Your task to perform on an android device: show emergency info Image 0: 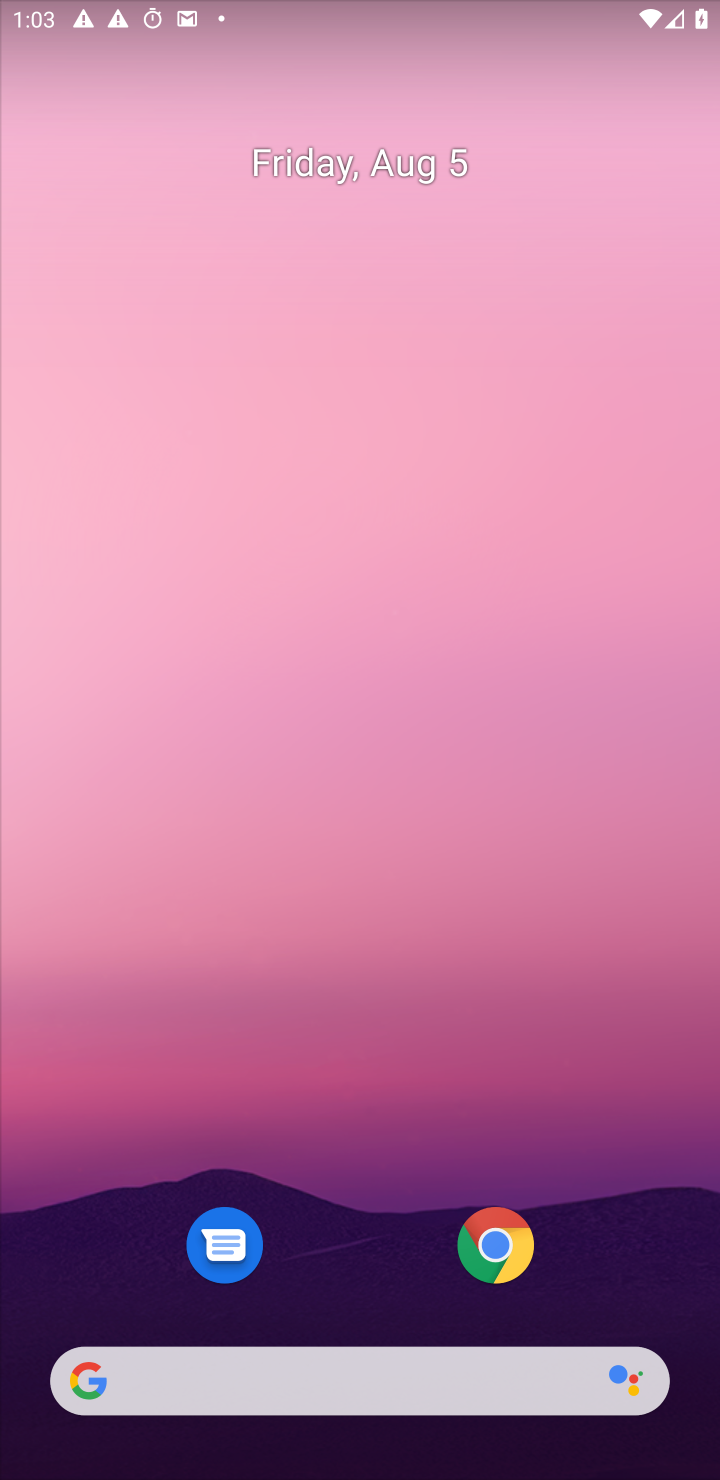
Step 0: drag from (282, 198) to (280, 88)
Your task to perform on an android device: show emergency info Image 1: 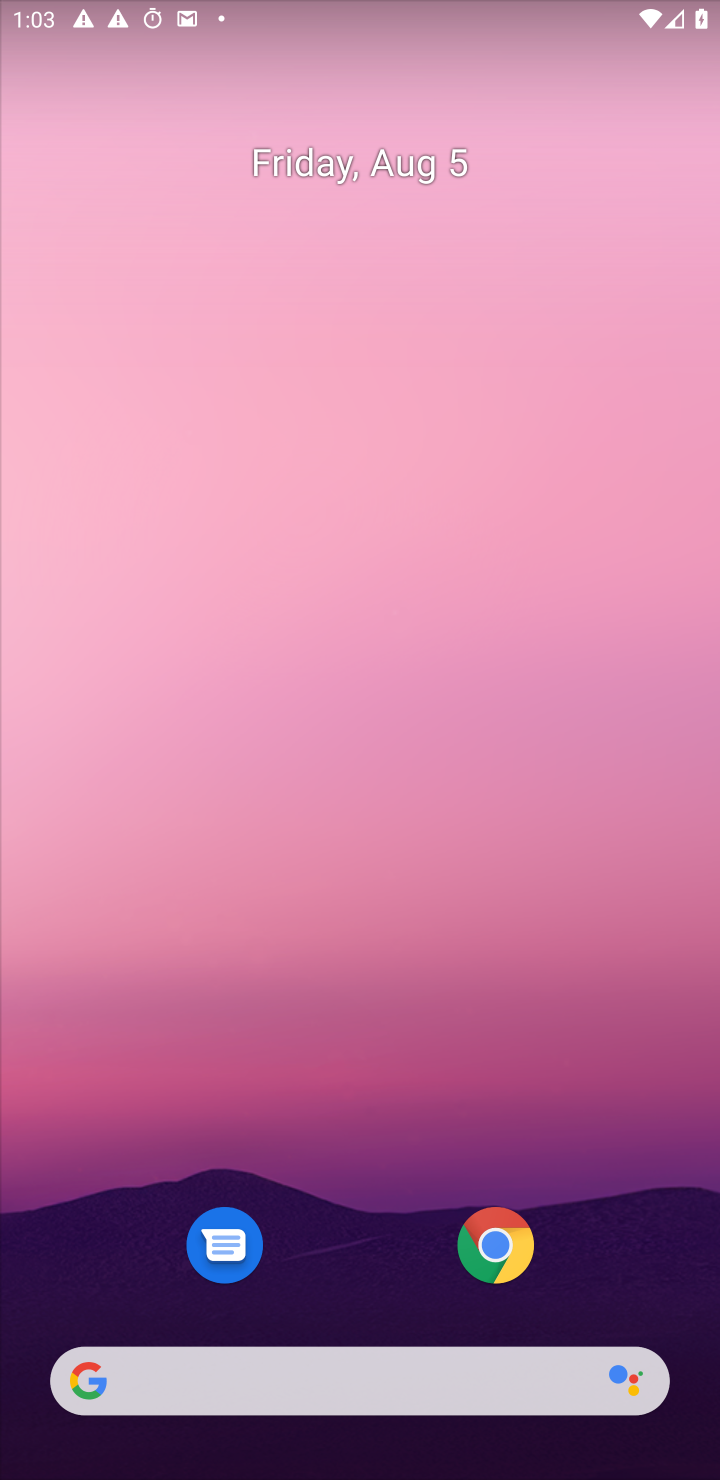
Step 1: drag from (496, 363) to (534, 38)
Your task to perform on an android device: show emergency info Image 2: 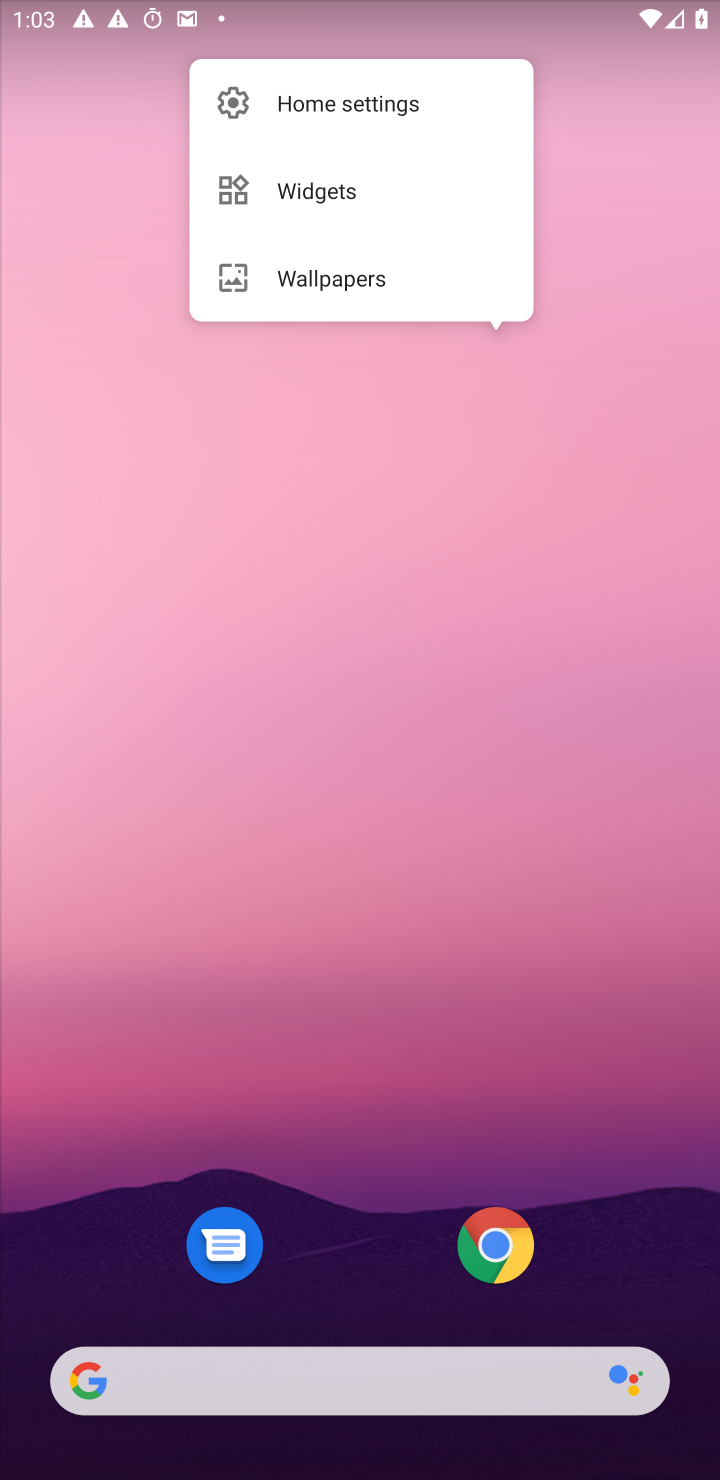
Step 2: click (320, 1178)
Your task to perform on an android device: show emergency info Image 3: 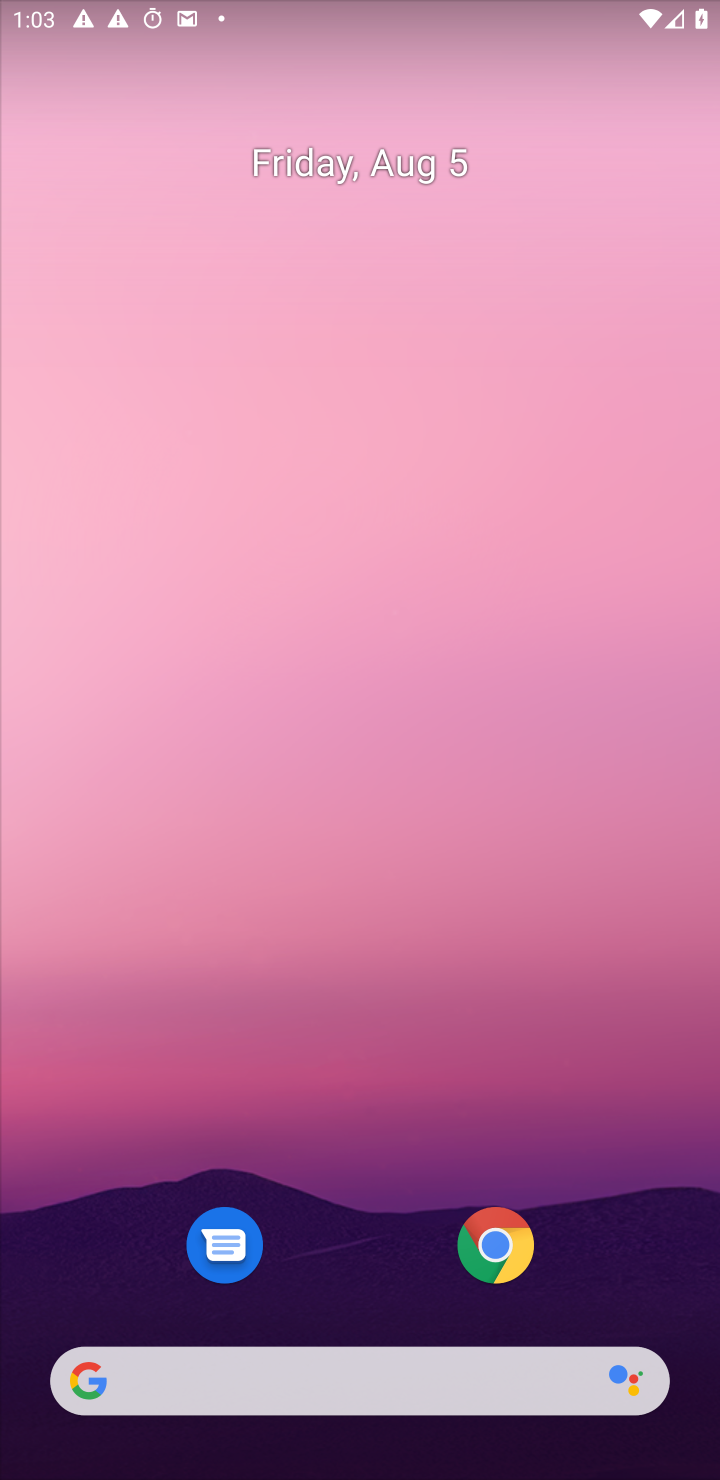
Step 3: drag from (408, 1040) to (401, 172)
Your task to perform on an android device: show emergency info Image 4: 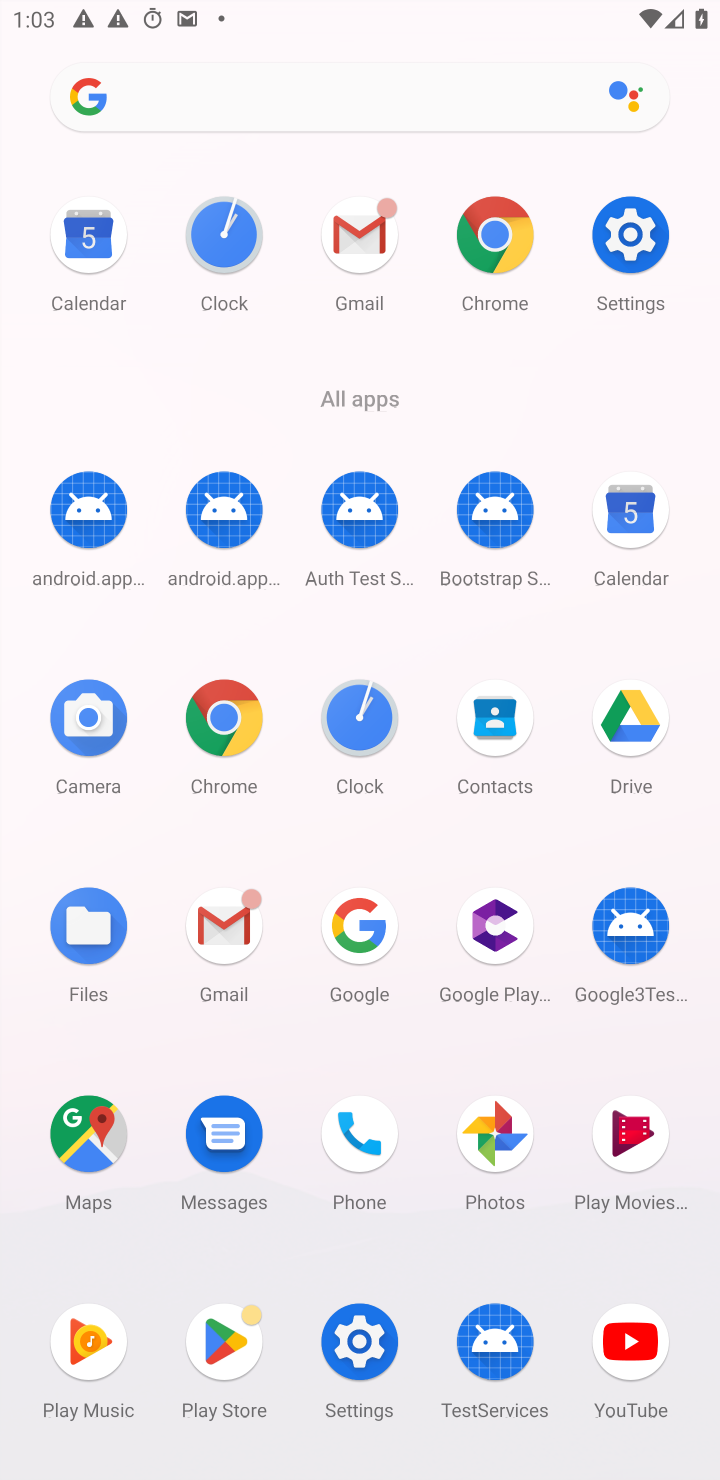
Step 4: click (641, 231)
Your task to perform on an android device: show emergency info Image 5: 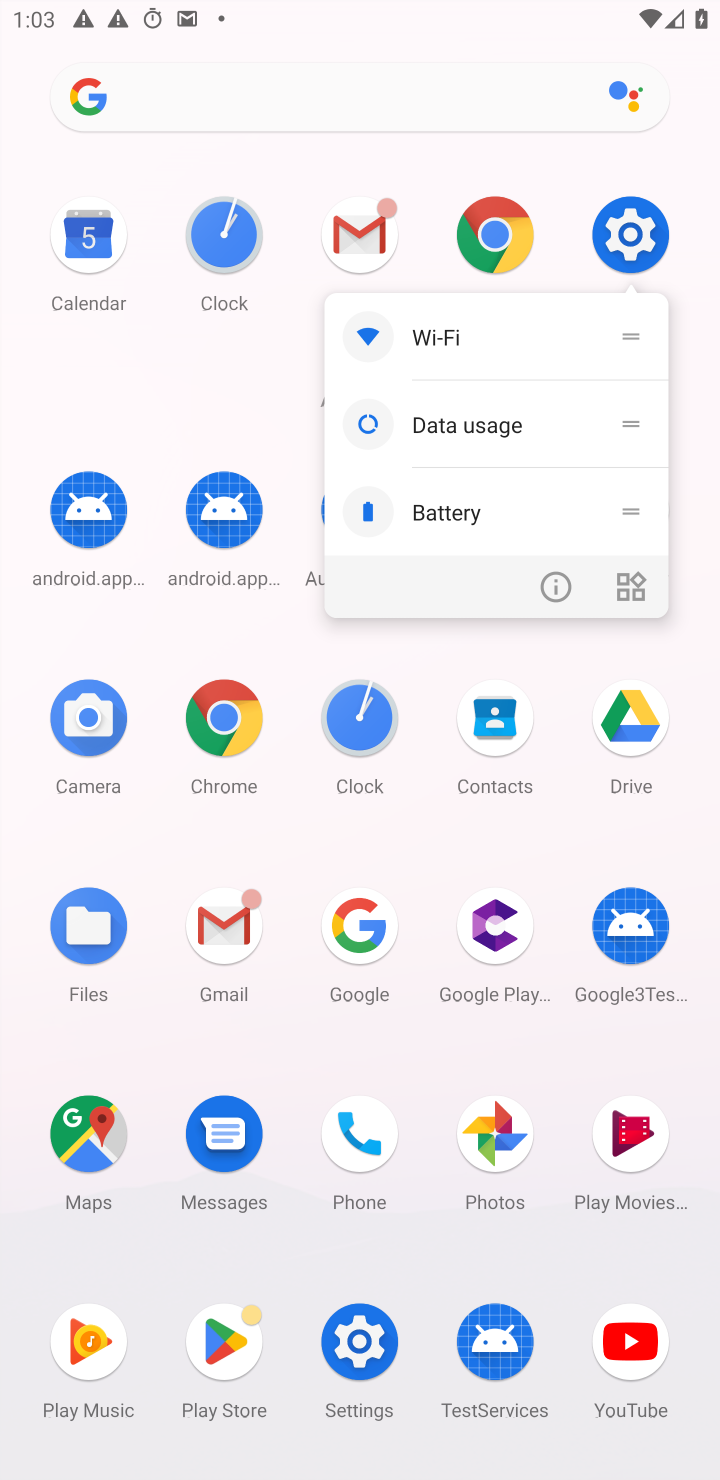
Step 5: click (641, 231)
Your task to perform on an android device: show emergency info Image 6: 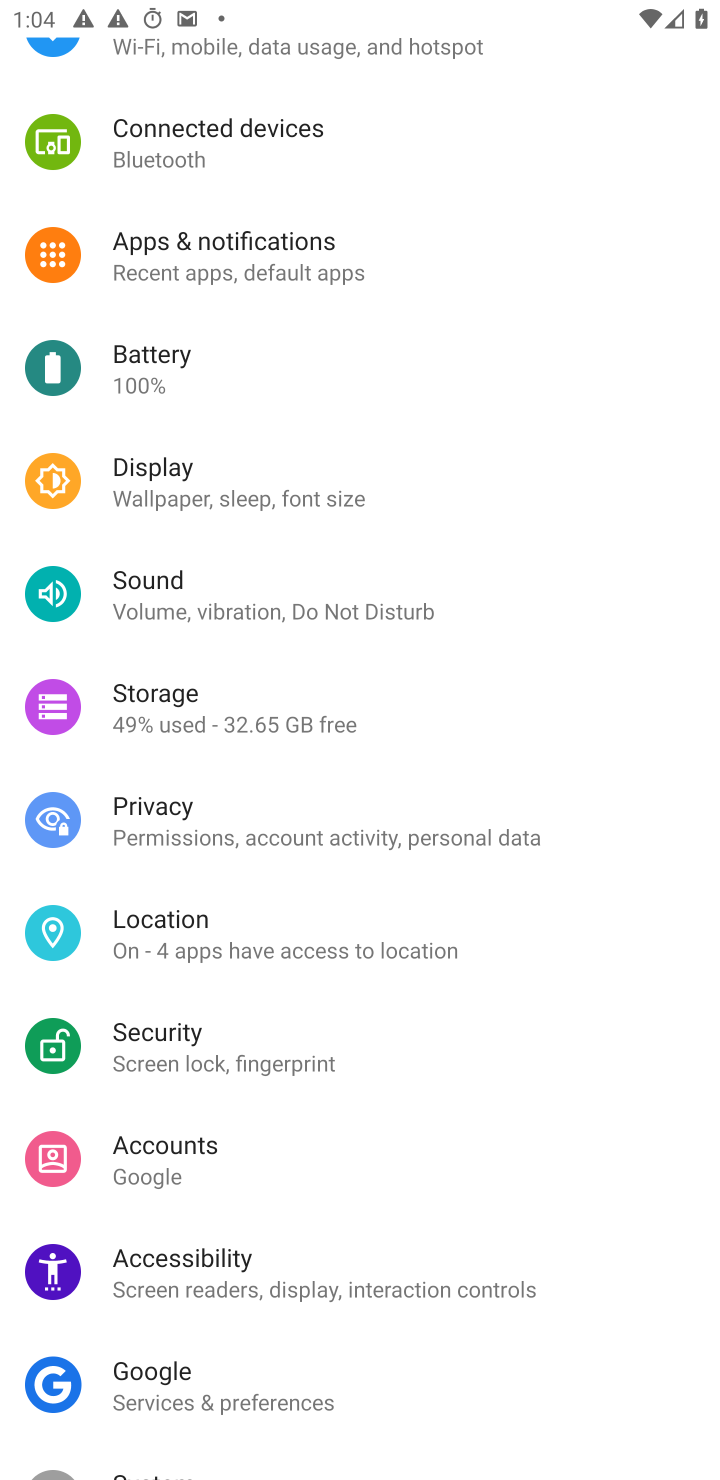
Step 6: drag from (418, 648) to (291, 1266)
Your task to perform on an android device: show emergency info Image 7: 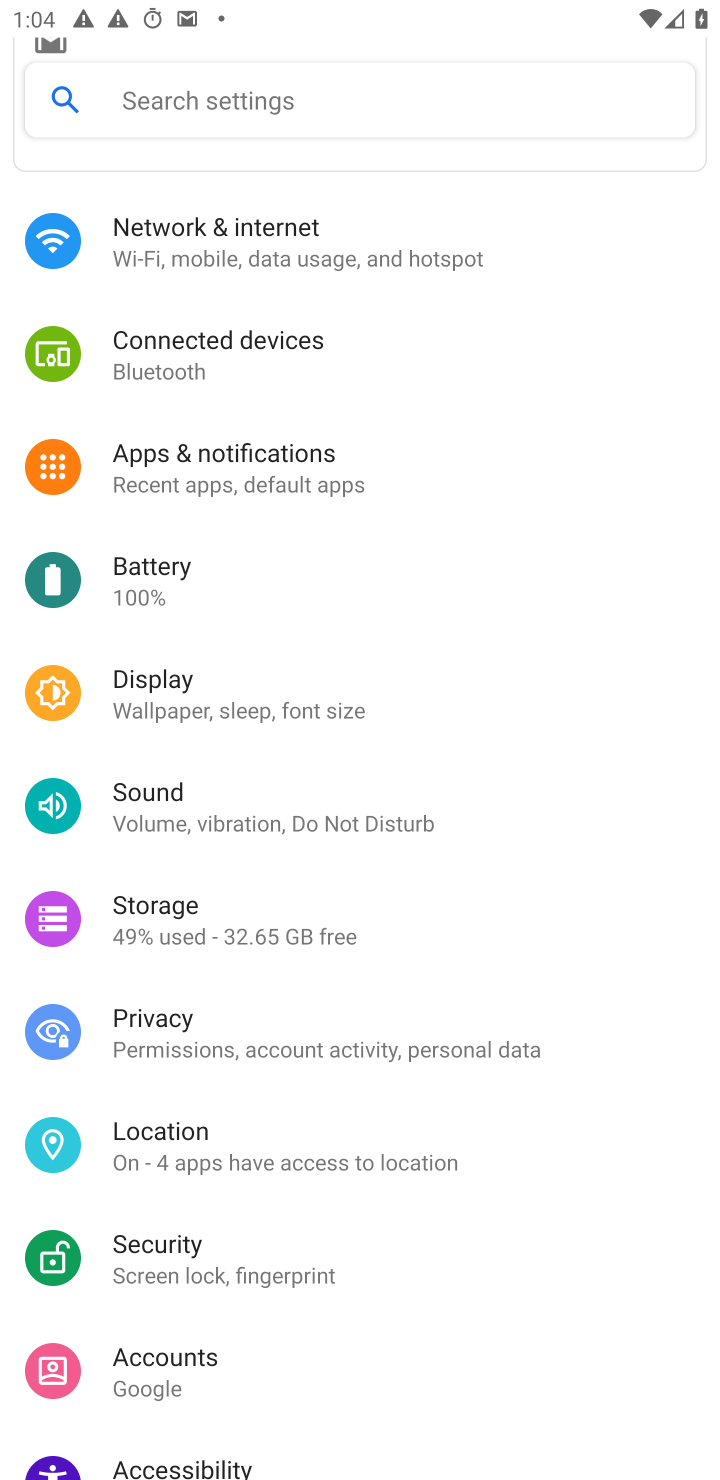
Step 7: drag from (418, 483) to (371, 897)
Your task to perform on an android device: show emergency info Image 8: 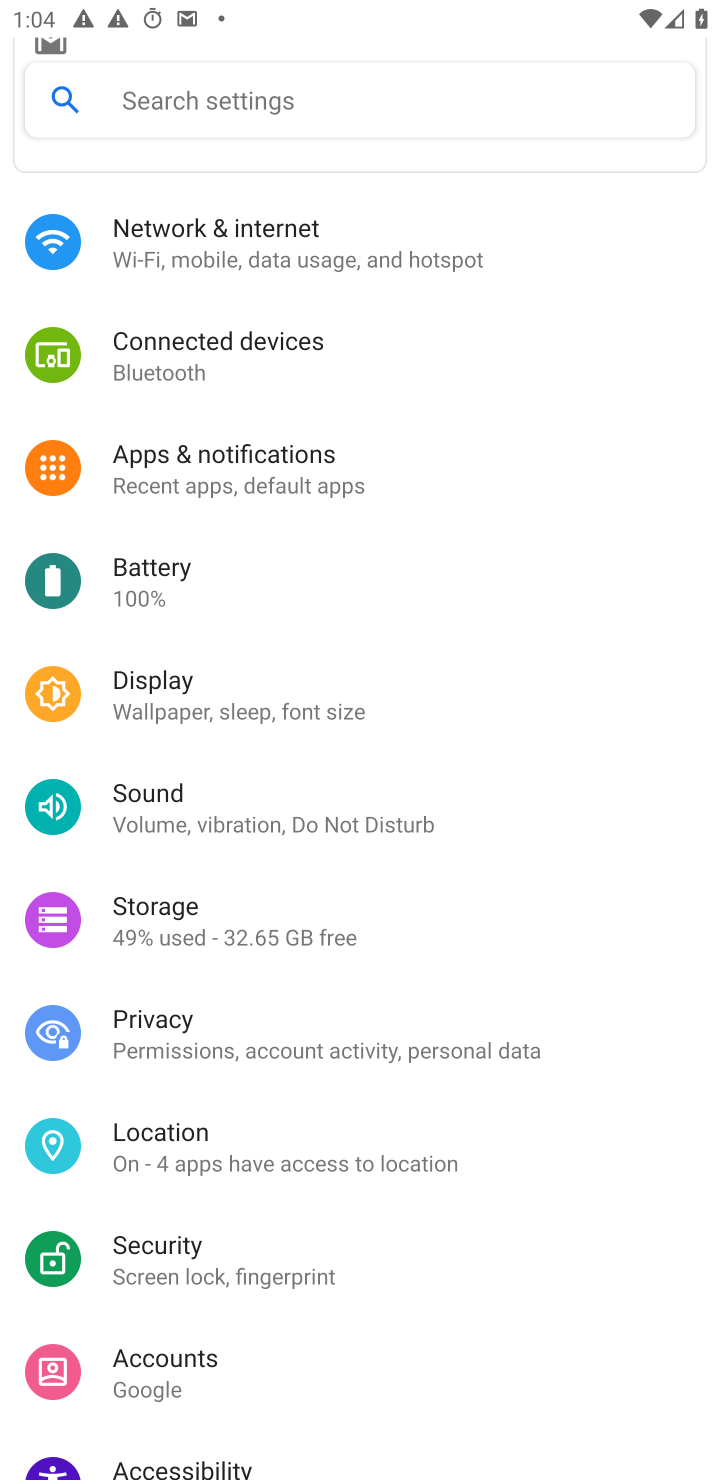
Step 8: drag from (501, 677) to (422, 11)
Your task to perform on an android device: show emergency info Image 9: 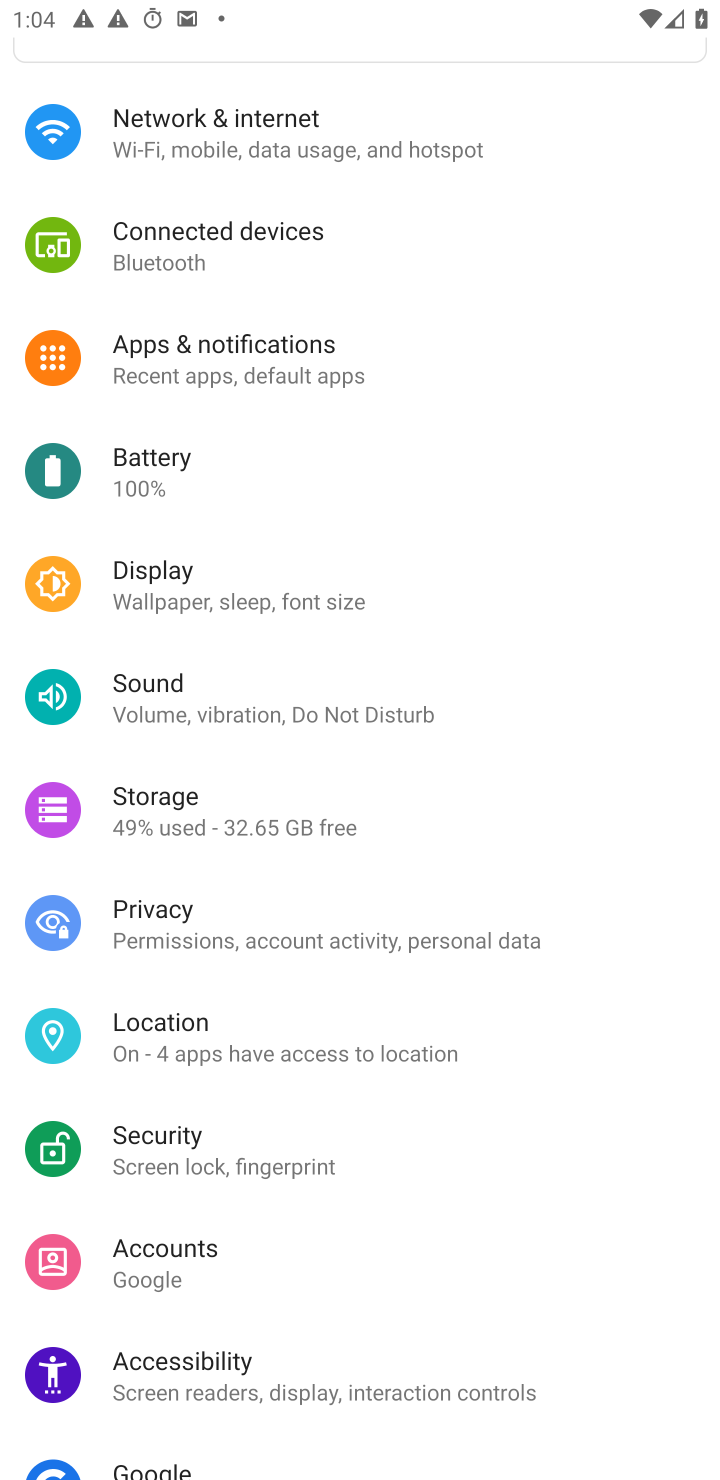
Step 9: drag from (527, 1352) to (525, 421)
Your task to perform on an android device: show emergency info Image 10: 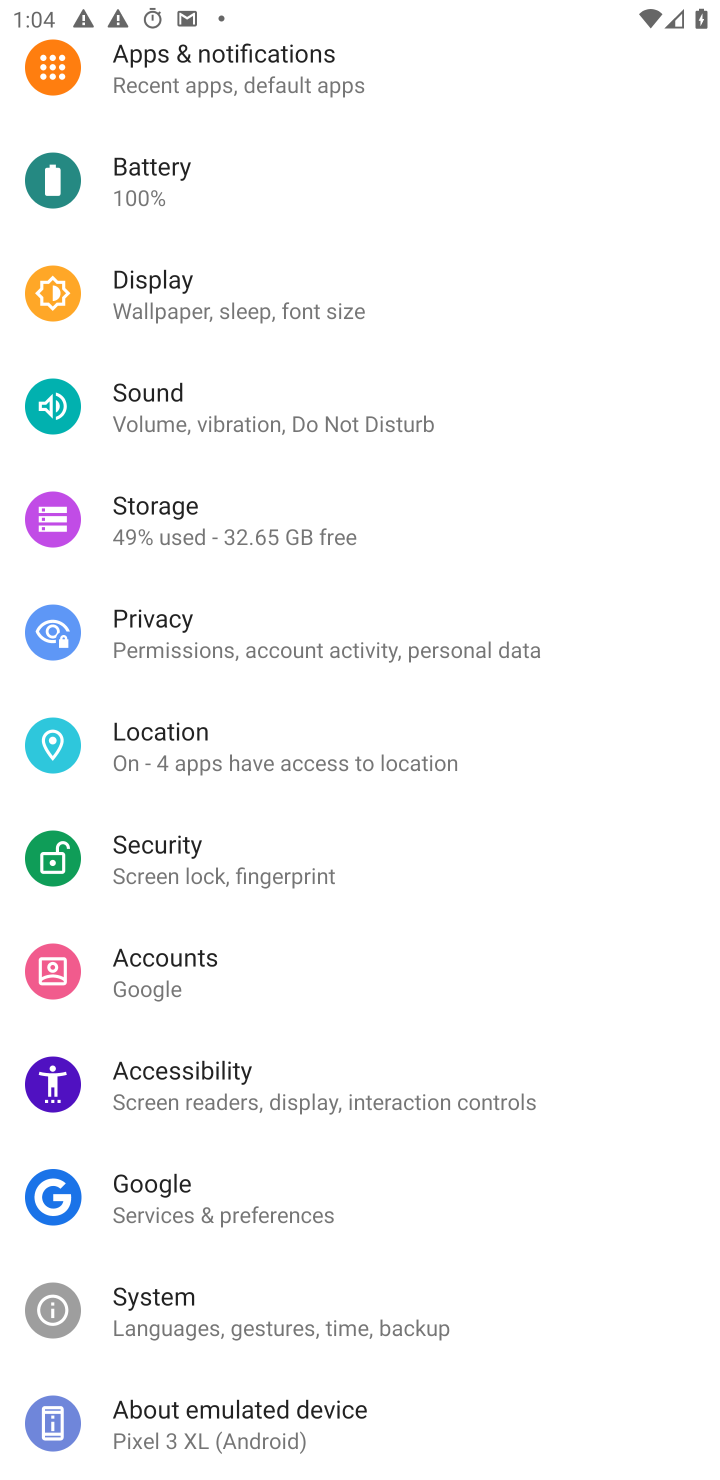
Step 10: click (198, 1429)
Your task to perform on an android device: show emergency info Image 11: 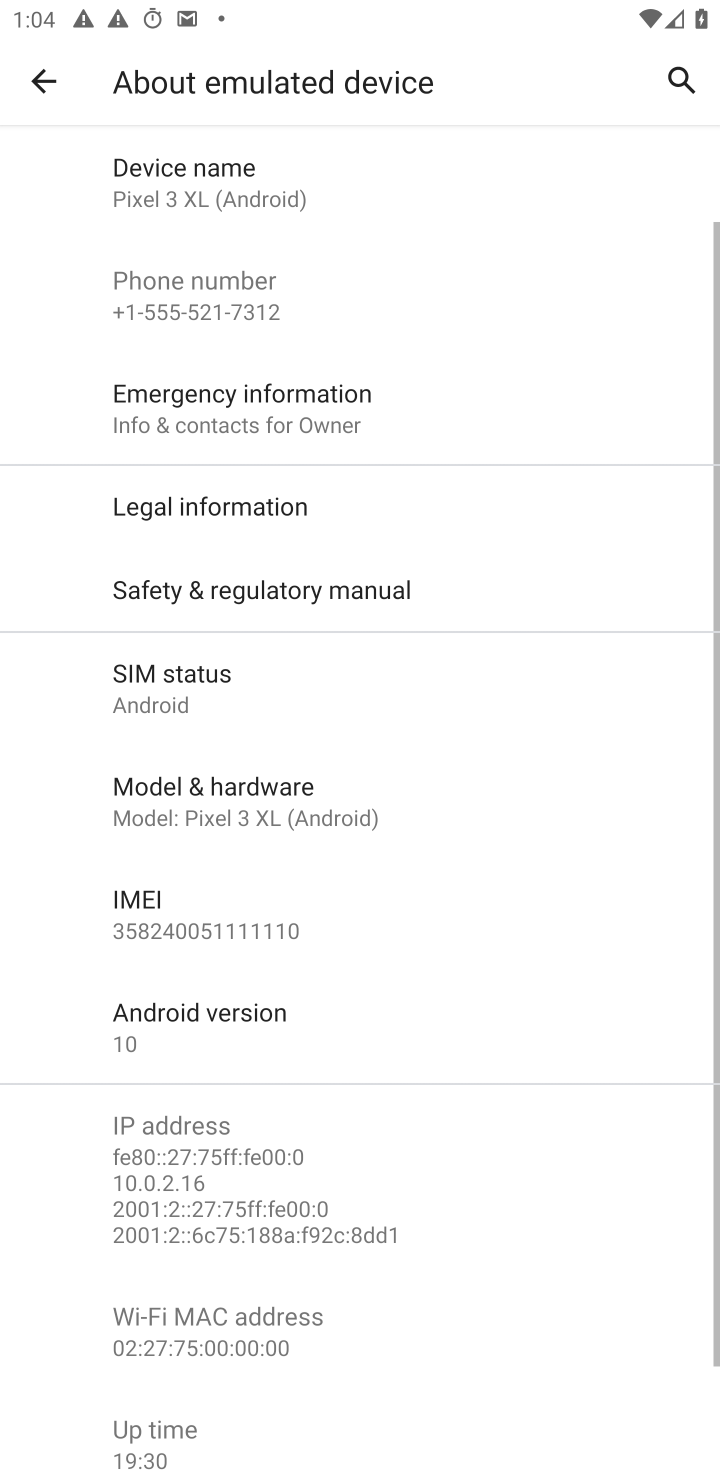
Step 11: click (245, 390)
Your task to perform on an android device: show emergency info Image 12: 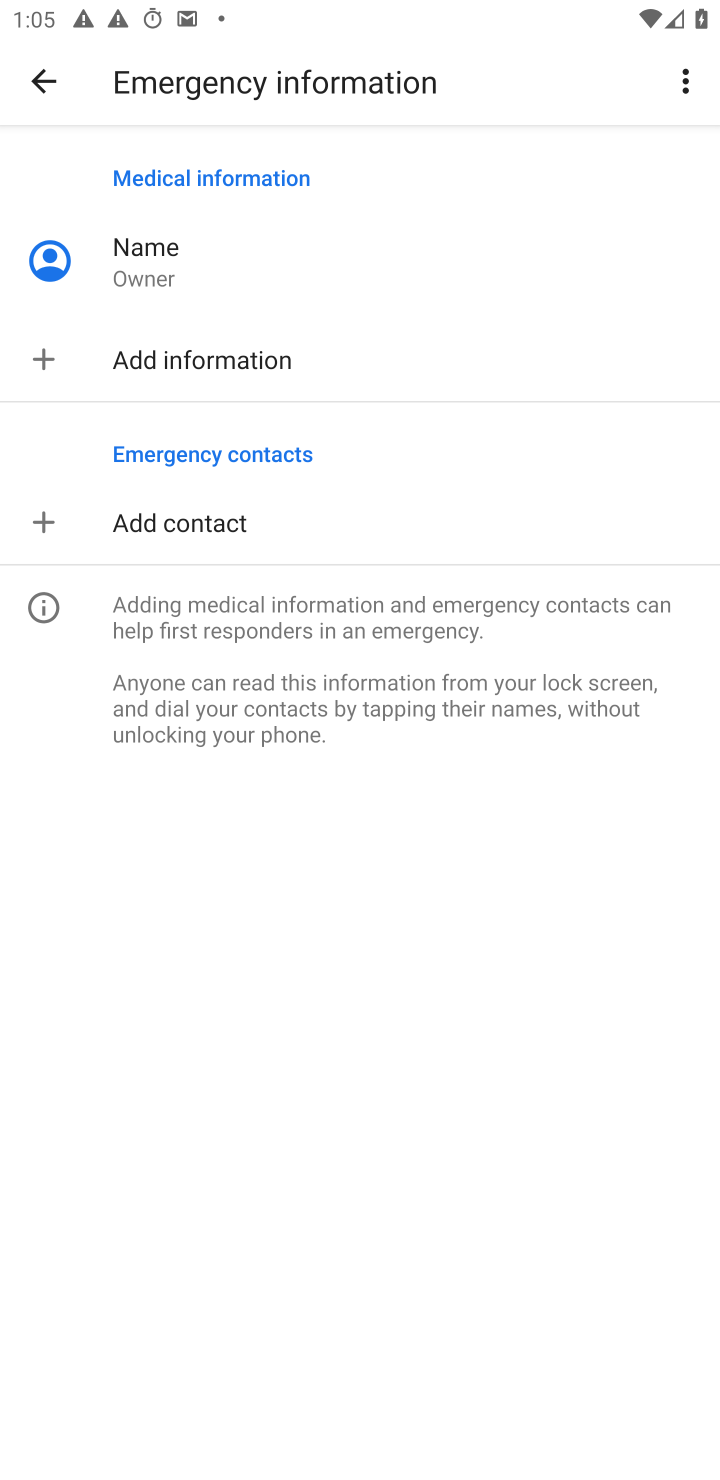
Step 12: task complete